Your task to perform on an android device: find snoozed emails in the gmail app Image 0: 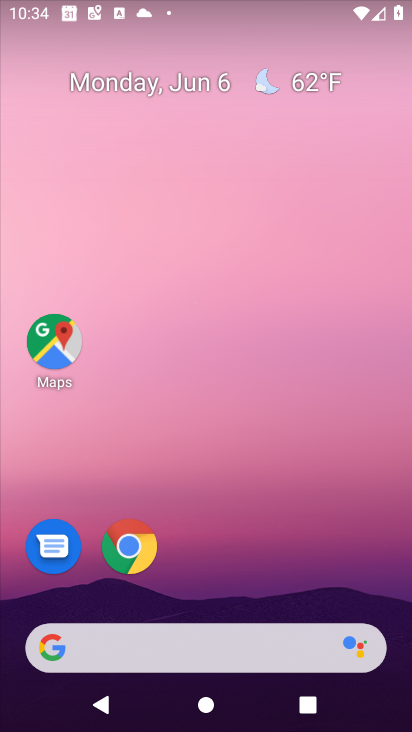
Step 0: drag from (373, 578) to (307, 34)
Your task to perform on an android device: find snoozed emails in the gmail app Image 1: 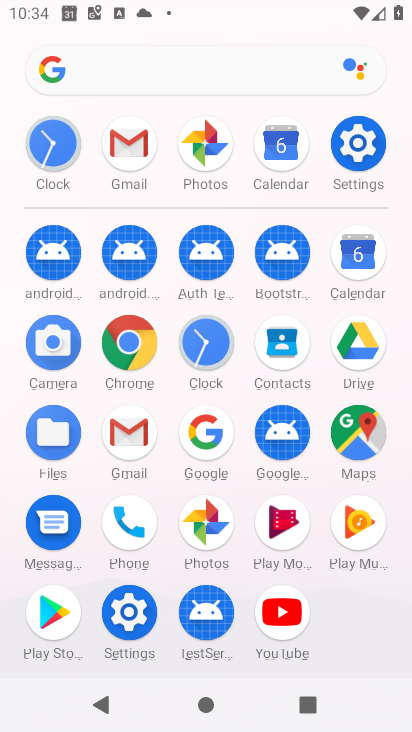
Step 1: click (124, 434)
Your task to perform on an android device: find snoozed emails in the gmail app Image 2: 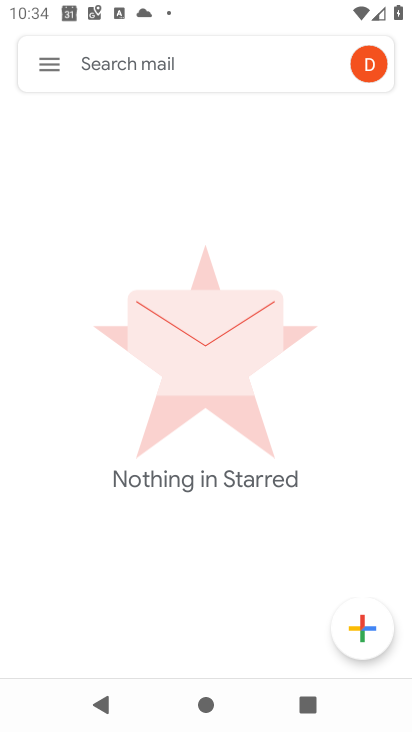
Step 2: click (51, 68)
Your task to perform on an android device: find snoozed emails in the gmail app Image 3: 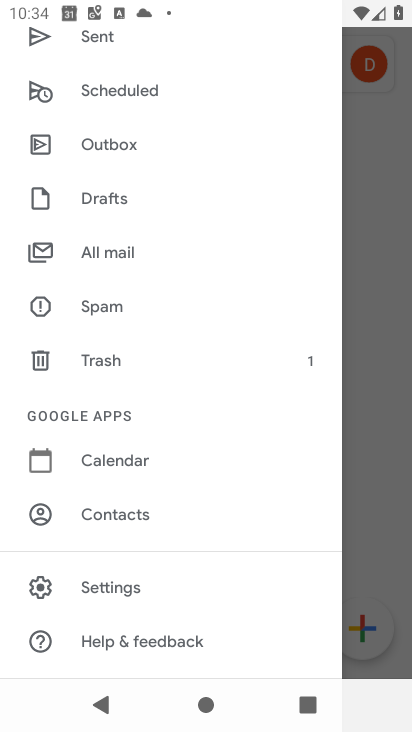
Step 3: drag from (270, 159) to (260, 289)
Your task to perform on an android device: find snoozed emails in the gmail app Image 4: 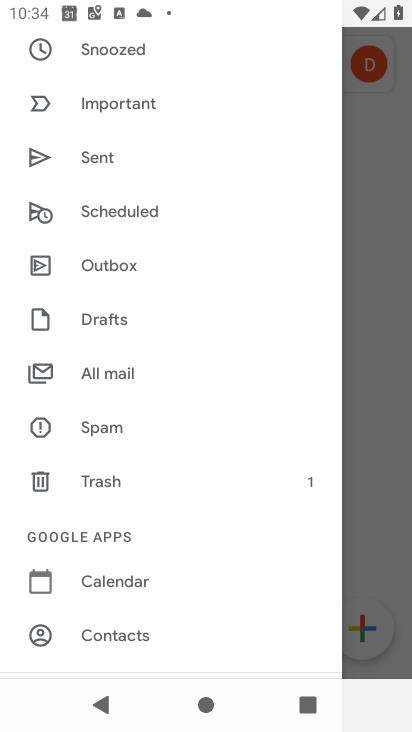
Step 4: drag from (233, 130) to (214, 380)
Your task to perform on an android device: find snoozed emails in the gmail app Image 5: 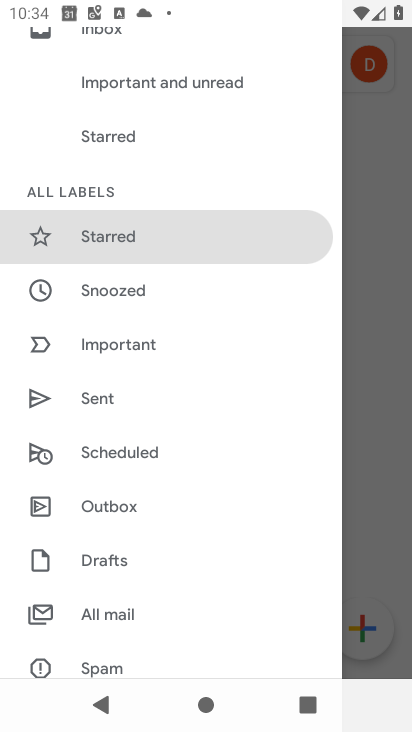
Step 5: click (107, 278)
Your task to perform on an android device: find snoozed emails in the gmail app Image 6: 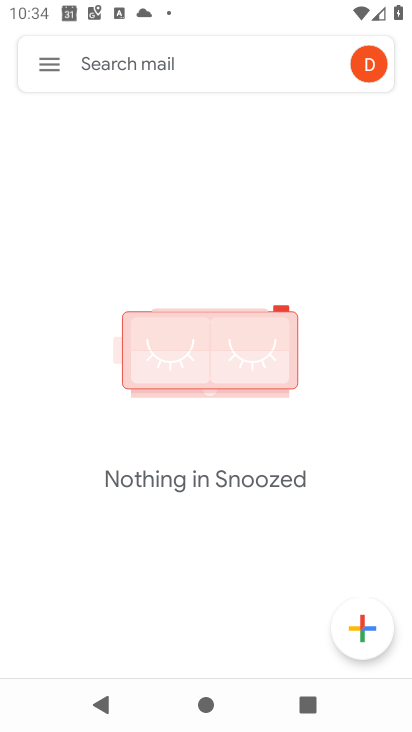
Step 6: task complete